Your task to perform on an android device: change the clock display to analog Image 0: 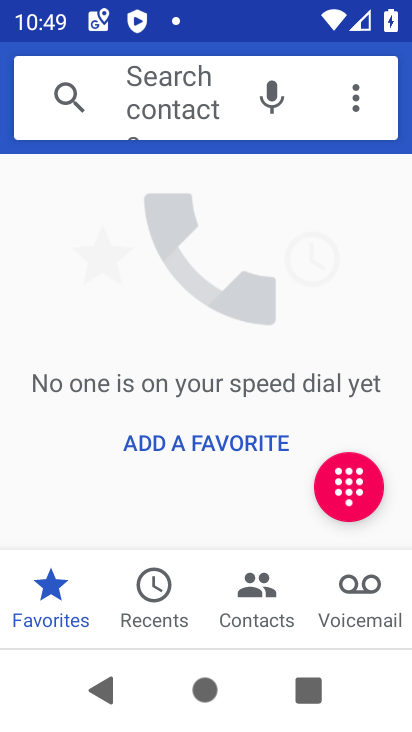
Step 0: press home button
Your task to perform on an android device: change the clock display to analog Image 1: 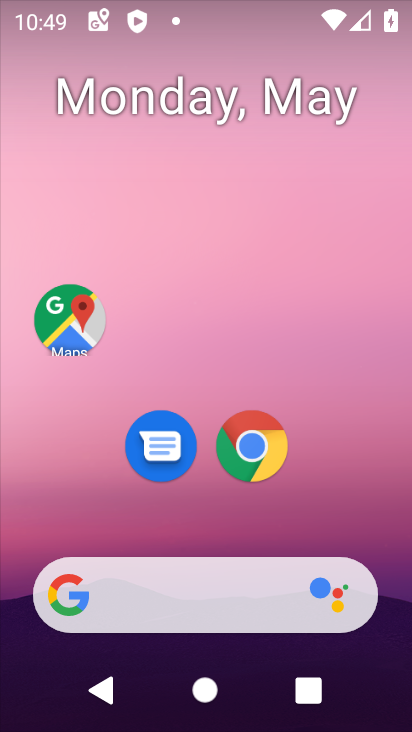
Step 1: drag from (214, 577) to (200, 17)
Your task to perform on an android device: change the clock display to analog Image 2: 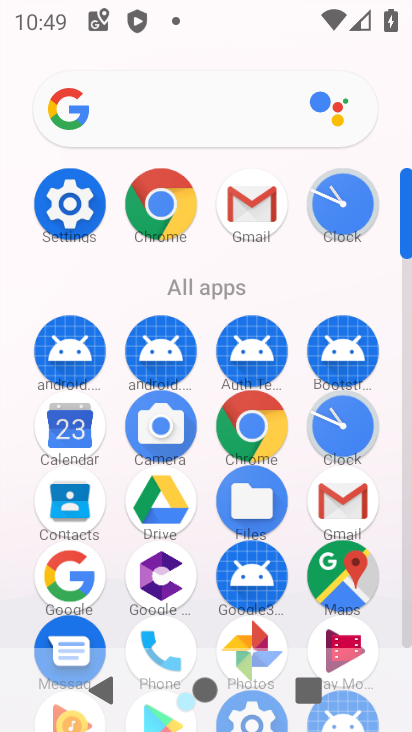
Step 2: click (334, 433)
Your task to perform on an android device: change the clock display to analog Image 3: 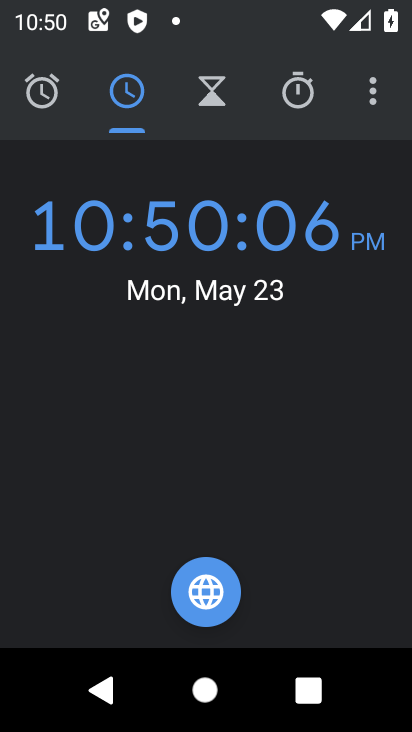
Step 3: click (372, 100)
Your task to perform on an android device: change the clock display to analog Image 4: 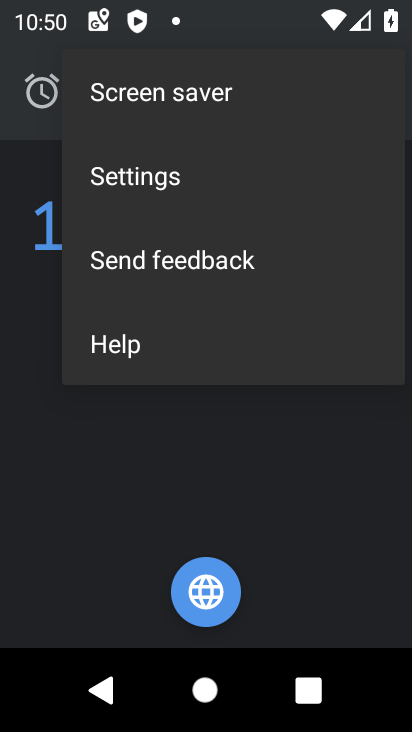
Step 4: click (218, 167)
Your task to perform on an android device: change the clock display to analog Image 5: 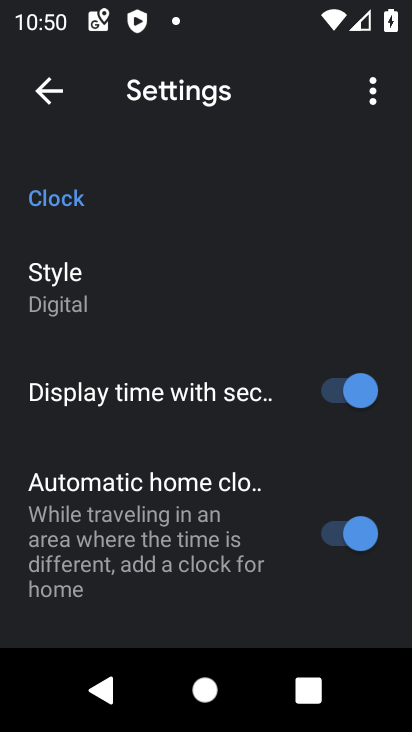
Step 5: click (148, 290)
Your task to perform on an android device: change the clock display to analog Image 6: 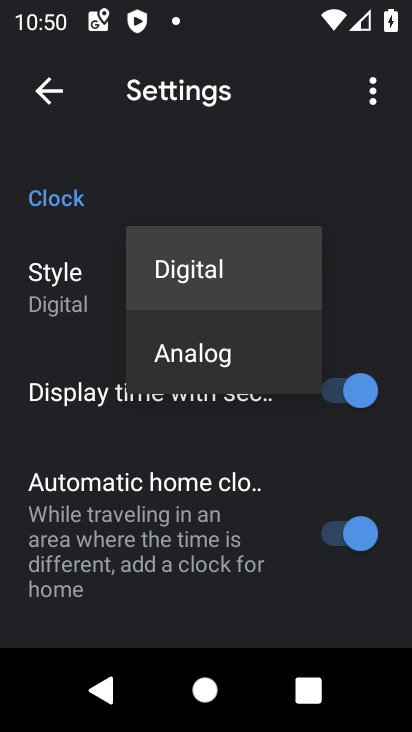
Step 6: click (207, 359)
Your task to perform on an android device: change the clock display to analog Image 7: 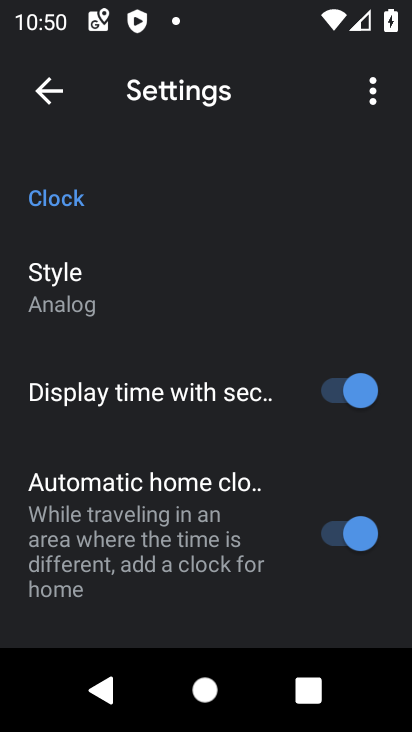
Step 7: task complete